Your task to perform on an android device: What's on my calendar tomorrow? Image 0: 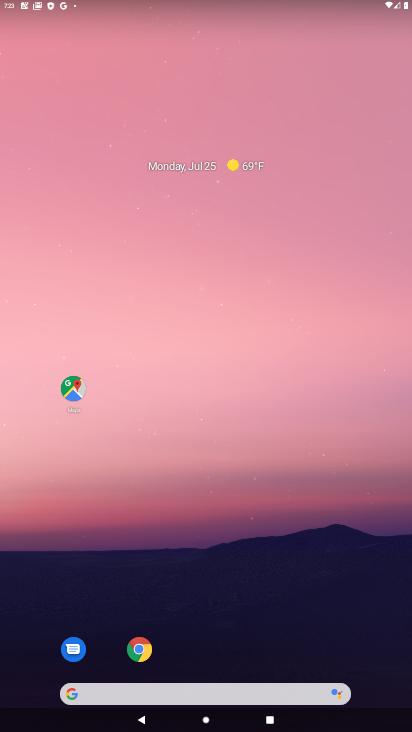
Step 0: drag from (262, 618) to (119, 5)
Your task to perform on an android device: What's on my calendar tomorrow? Image 1: 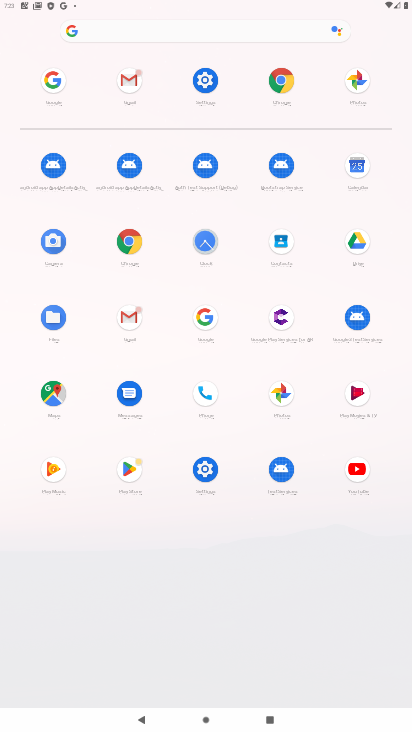
Step 1: click (358, 173)
Your task to perform on an android device: What's on my calendar tomorrow? Image 2: 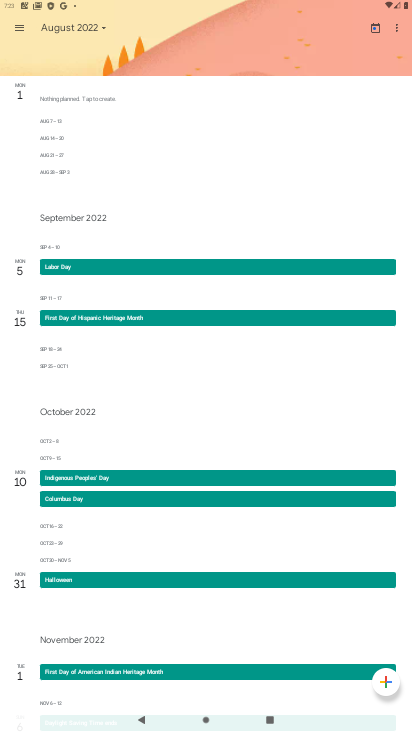
Step 2: click (49, 25)
Your task to perform on an android device: What's on my calendar tomorrow? Image 3: 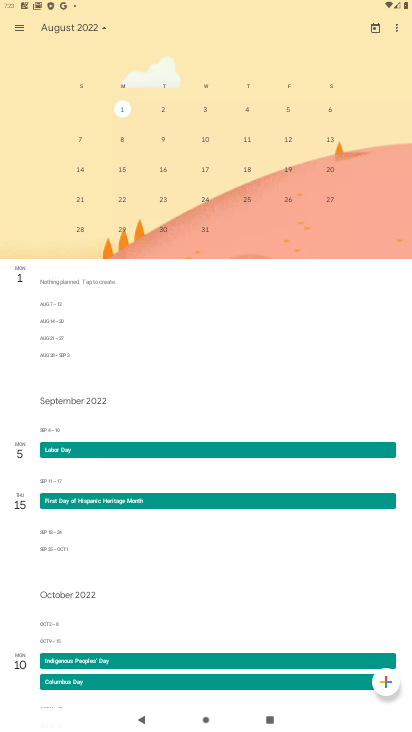
Step 3: click (160, 113)
Your task to perform on an android device: What's on my calendar tomorrow? Image 4: 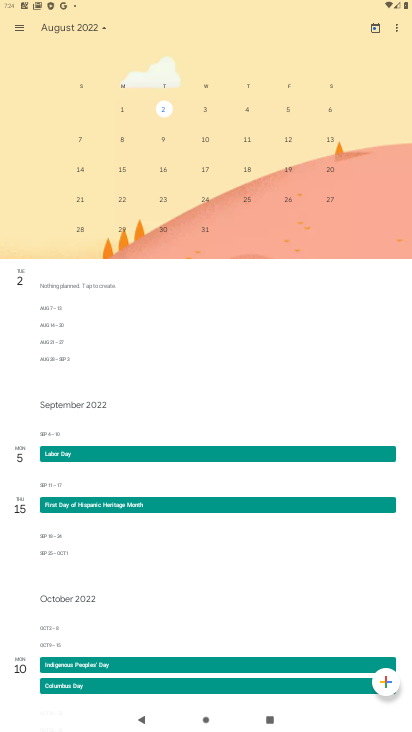
Step 4: task complete